Your task to perform on an android device: Search for the new Nintendo switch on Best Buy Image 0: 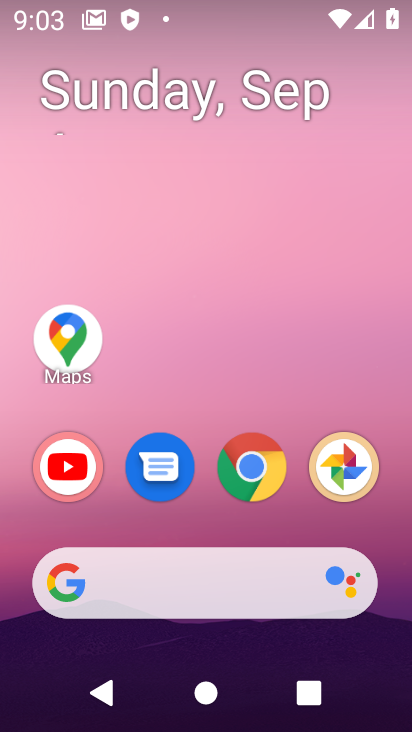
Step 0: click (250, 456)
Your task to perform on an android device: Search for the new Nintendo switch on Best Buy Image 1: 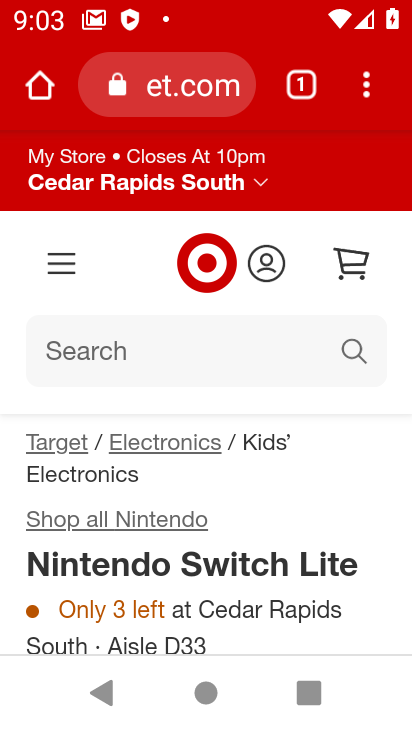
Step 1: click (172, 88)
Your task to perform on an android device: Search for the new Nintendo switch on Best Buy Image 2: 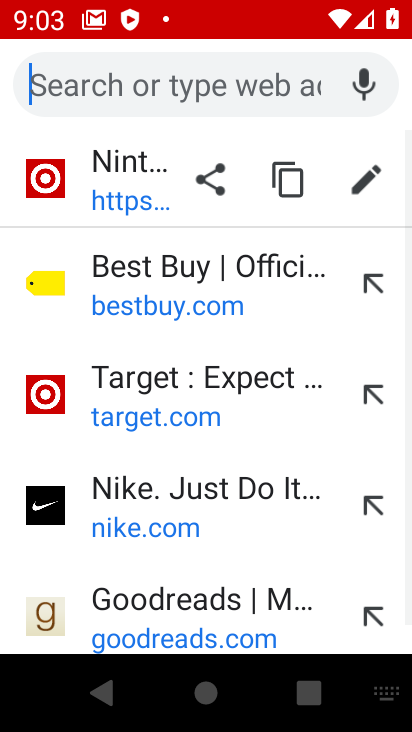
Step 2: click (162, 290)
Your task to perform on an android device: Search for the new Nintendo switch on Best Buy Image 3: 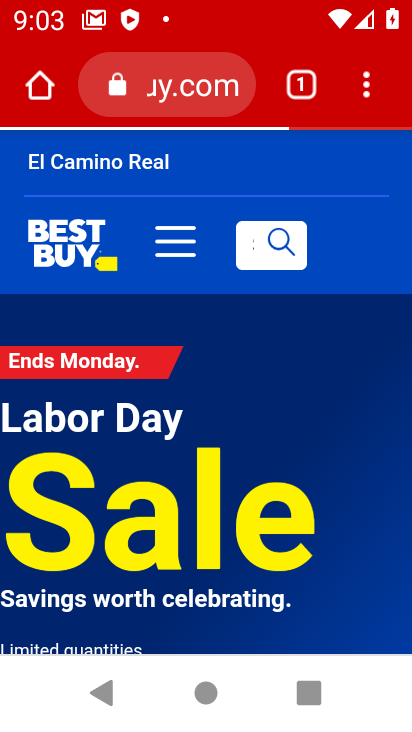
Step 3: click (150, 332)
Your task to perform on an android device: Search for the new Nintendo switch on Best Buy Image 4: 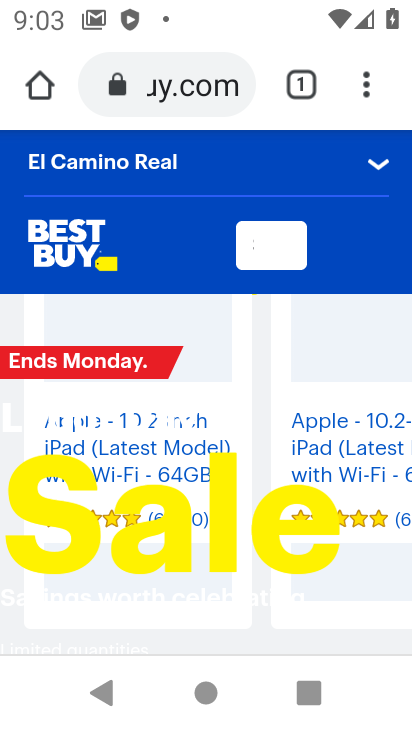
Step 4: click (277, 248)
Your task to perform on an android device: Search for the new Nintendo switch on Best Buy Image 5: 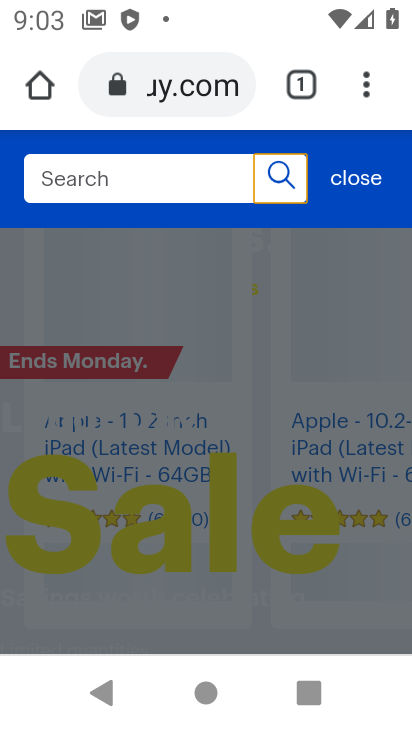
Step 5: click (105, 169)
Your task to perform on an android device: Search for the new Nintendo switch on Best Buy Image 6: 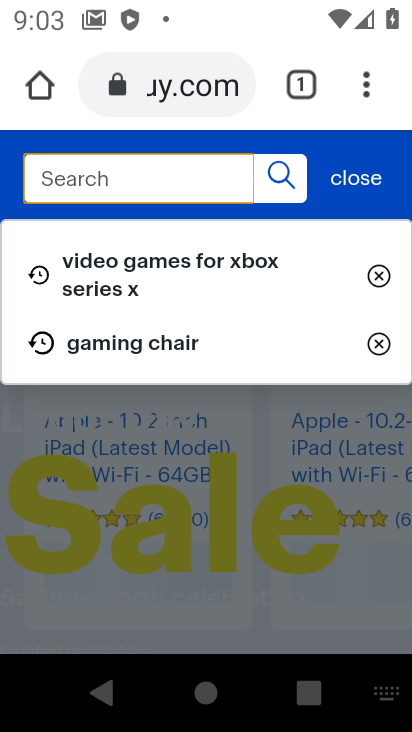
Step 6: type "new nintendo switch"
Your task to perform on an android device: Search for the new Nintendo switch on Best Buy Image 7: 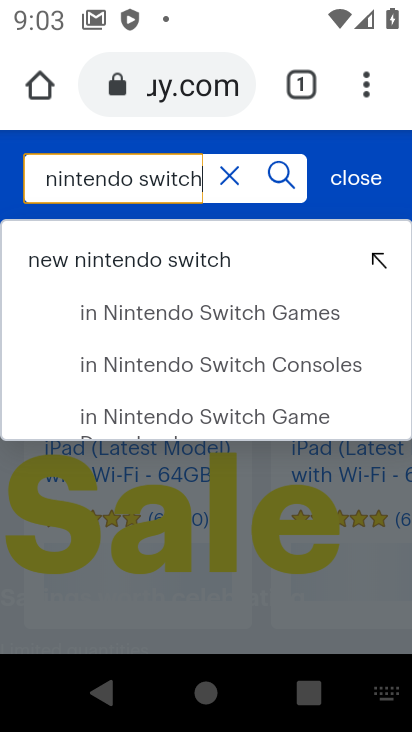
Step 7: click (158, 319)
Your task to perform on an android device: Search for the new Nintendo switch on Best Buy Image 8: 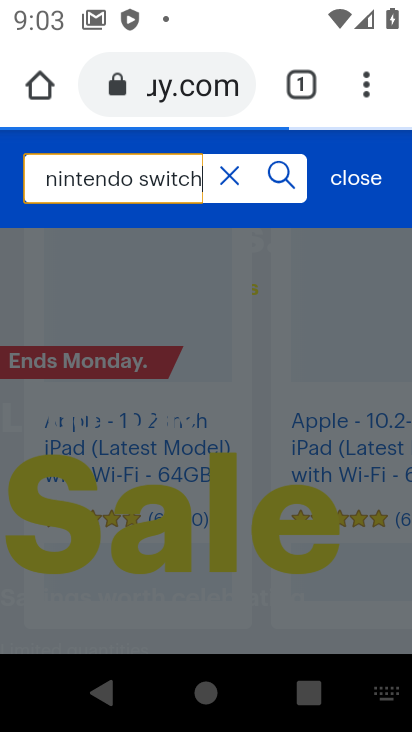
Step 8: task complete